Your task to perform on an android device: Search for sushi restaurants on Maps Image 0: 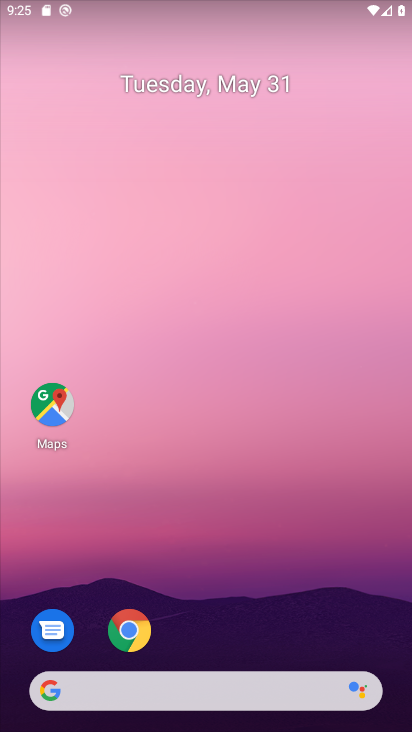
Step 0: click (46, 396)
Your task to perform on an android device: Search for sushi restaurants on Maps Image 1: 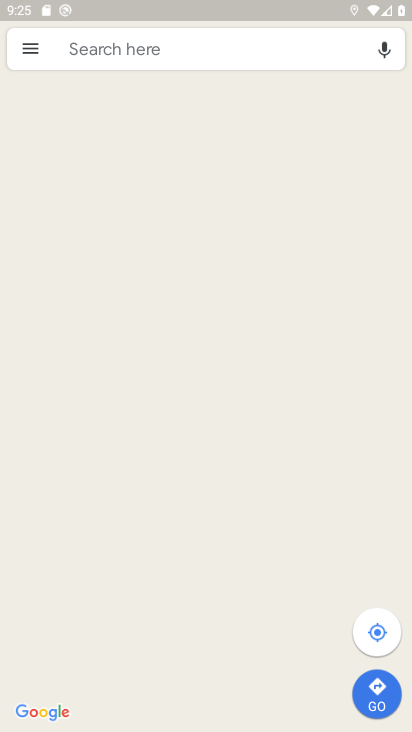
Step 1: click (167, 41)
Your task to perform on an android device: Search for sushi restaurants on Maps Image 2: 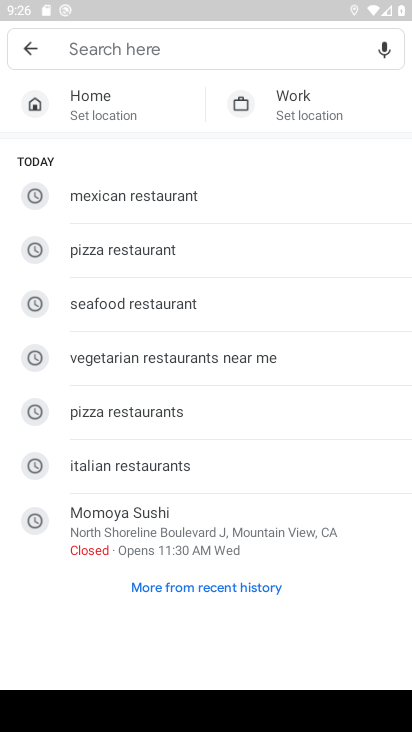
Step 2: type "sushi restaurants"
Your task to perform on an android device: Search for sushi restaurants on Maps Image 3: 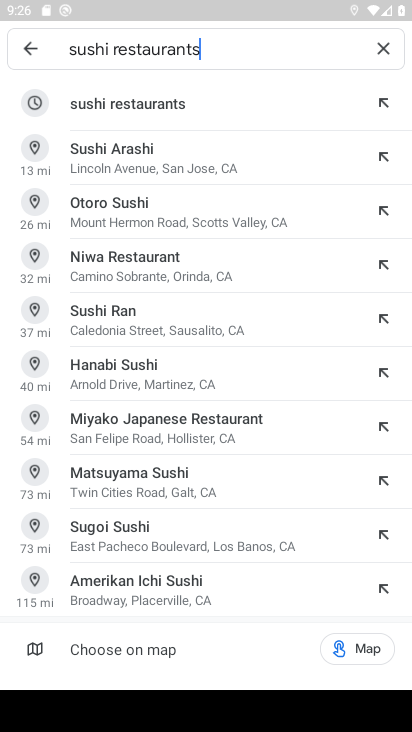
Step 3: click (154, 113)
Your task to perform on an android device: Search for sushi restaurants on Maps Image 4: 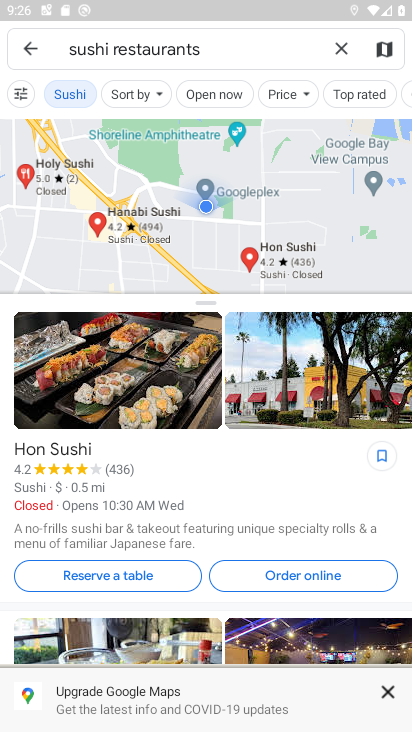
Step 4: task complete